Your task to perform on an android device: Open accessibility settings Image 0: 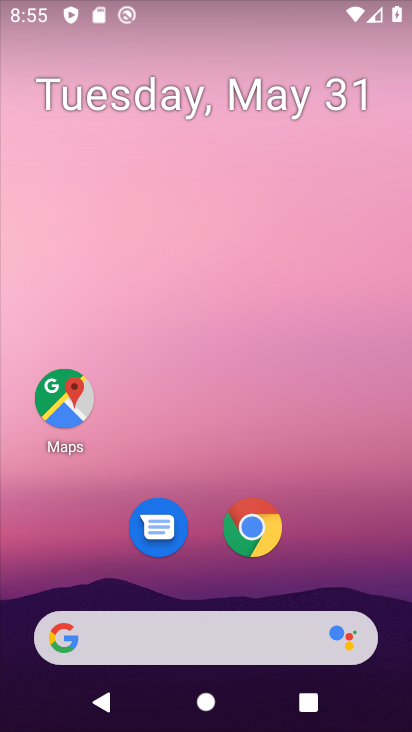
Step 0: drag from (184, 579) to (214, 121)
Your task to perform on an android device: Open accessibility settings Image 1: 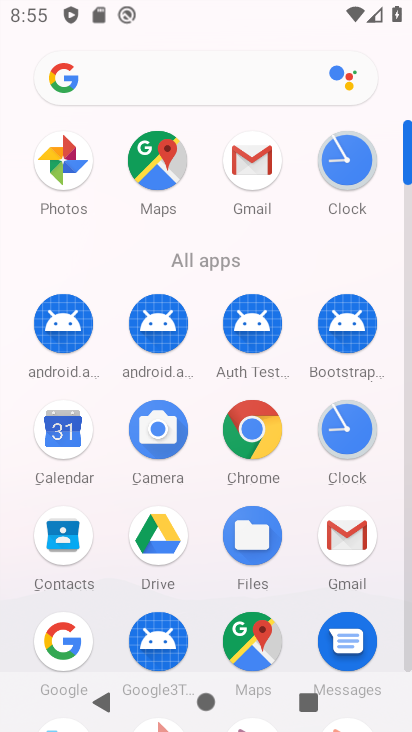
Step 1: drag from (238, 542) to (254, 324)
Your task to perform on an android device: Open accessibility settings Image 2: 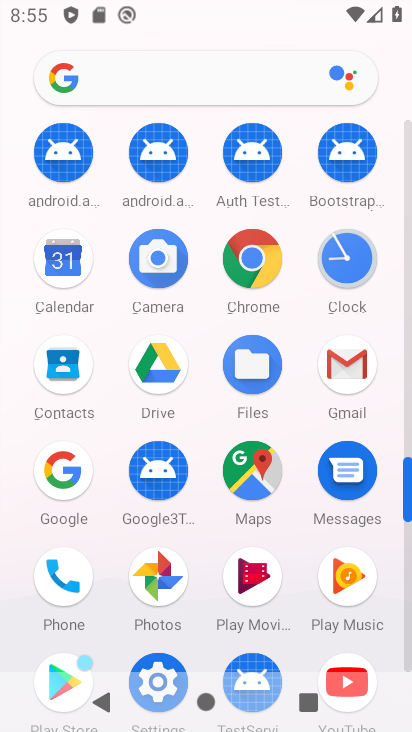
Step 2: drag from (176, 632) to (227, 405)
Your task to perform on an android device: Open accessibility settings Image 3: 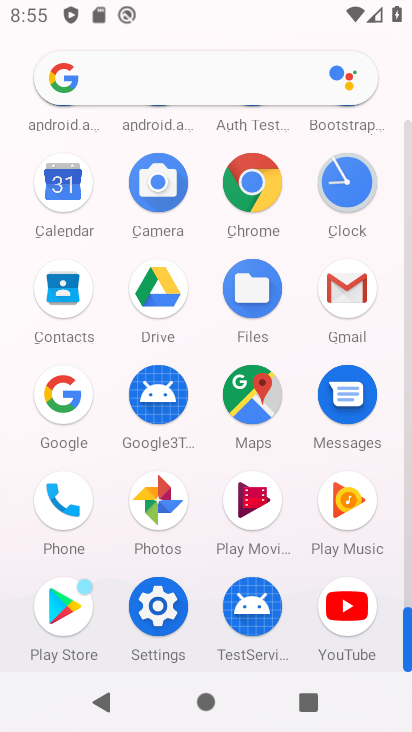
Step 3: click (164, 605)
Your task to perform on an android device: Open accessibility settings Image 4: 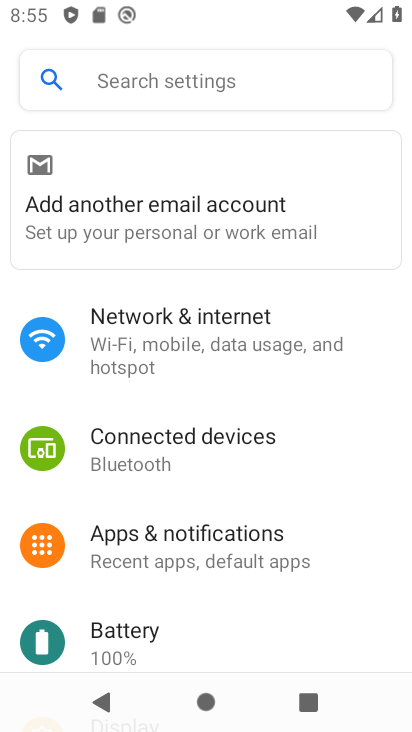
Step 4: drag from (187, 617) to (190, 358)
Your task to perform on an android device: Open accessibility settings Image 5: 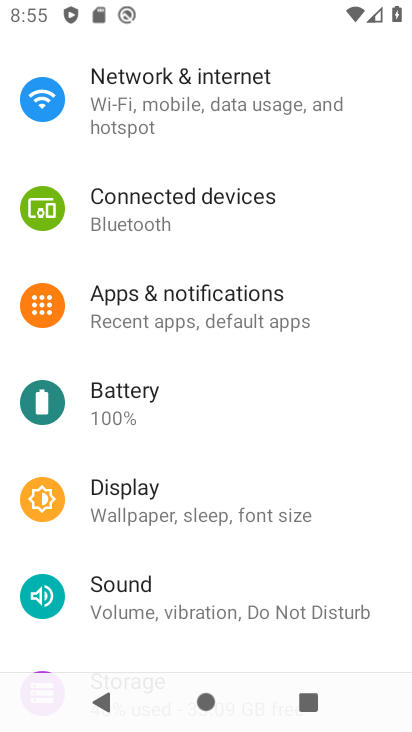
Step 5: drag from (207, 604) to (176, 369)
Your task to perform on an android device: Open accessibility settings Image 6: 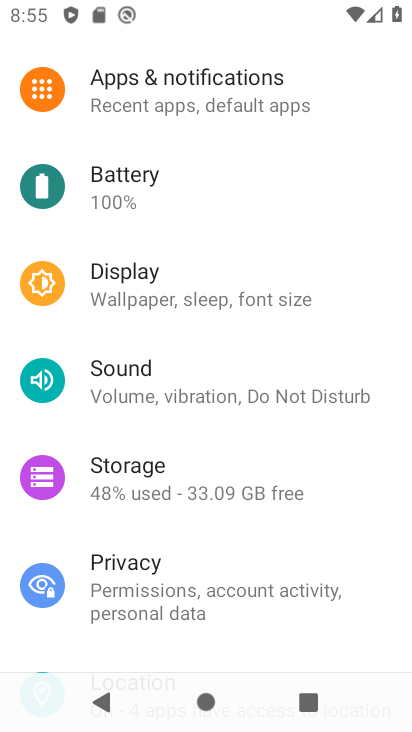
Step 6: drag from (207, 588) to (223, 395)
Your task to perform on an android device: Open accessibility settings Image 7: 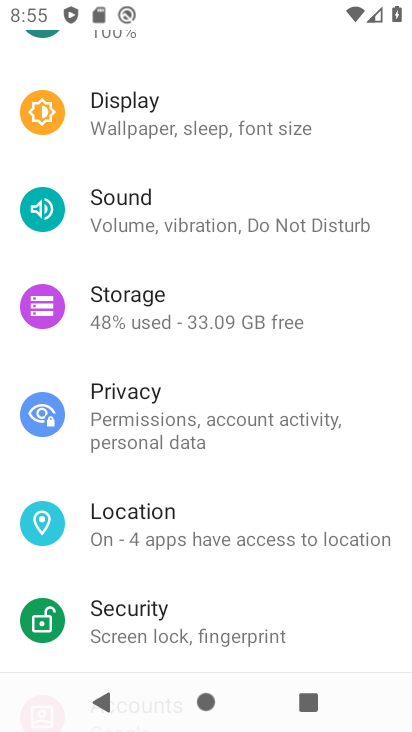
Step 7: drag from (216, 608) to (192, 364)
Your task to perform on an android device: Open accessibility settings Image 8: 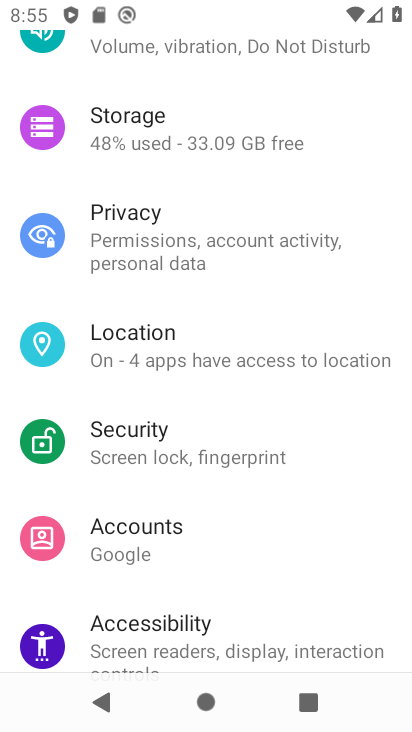
Step 8: drag from (176, 593) to (157, 371)
Your task to perform on an android device: Open accessibility settings Image 9: 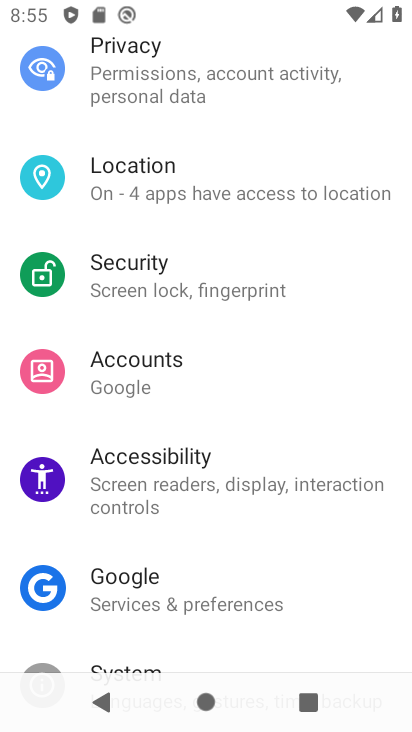
Step 9: drag from (192, 626) to (205, 438)
Your task to perform on an android device: Open accessibility settings Image 10: 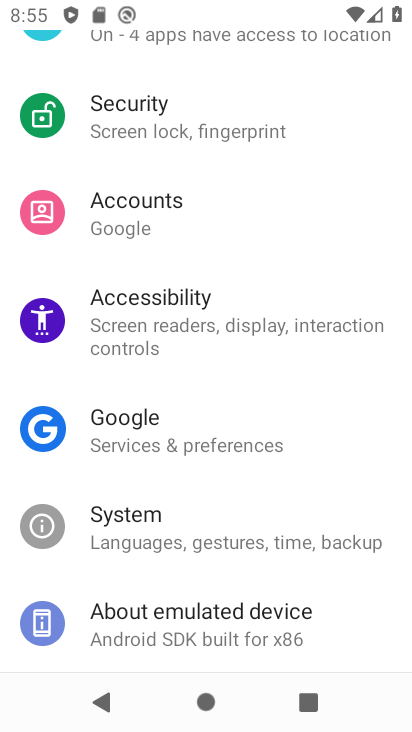
Step 10: click (154, 358)
Your task to perform on an android device: Open accessibility settings Image 11: 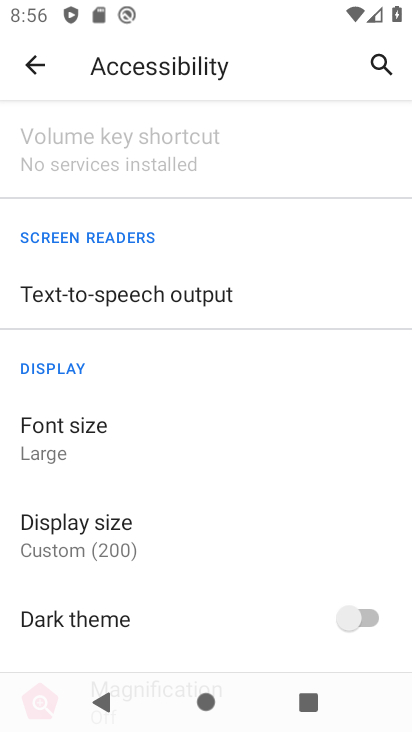
Step 11: task complete